Your task to perform on an android device: turn on sleep mode Image 0: 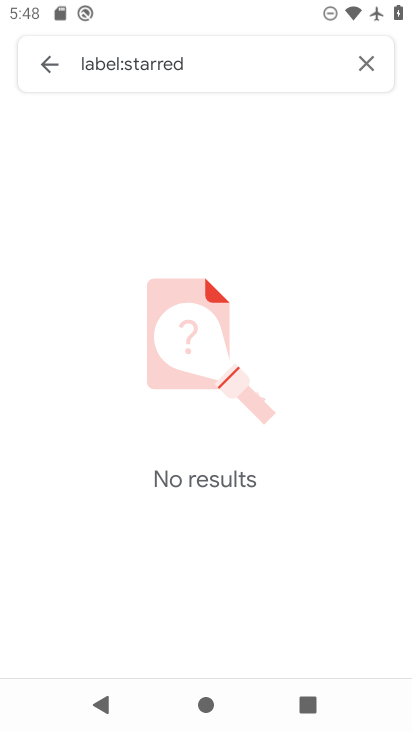
Step 0: press home button
Your task to perform on an android device: turn on sleep mode Image 1: 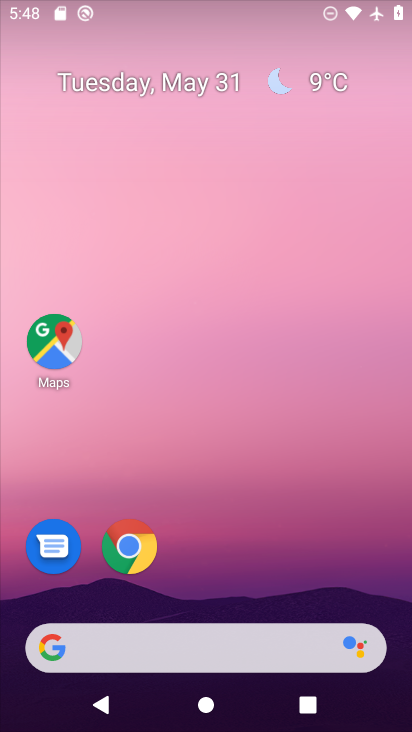
Step 1: drag from (287, 512) to (194, 2)
Your task to perform on an android device: turn on sleep mode Image 2: 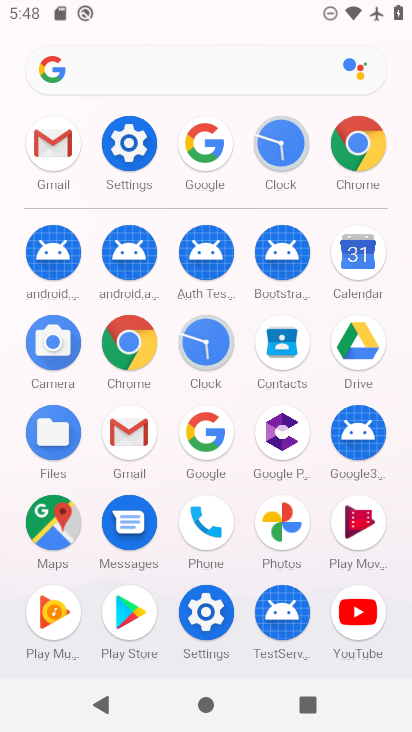
Step 2: click (115, 149)
Your task to perform on an android device: turn on sleep mode Image 3: 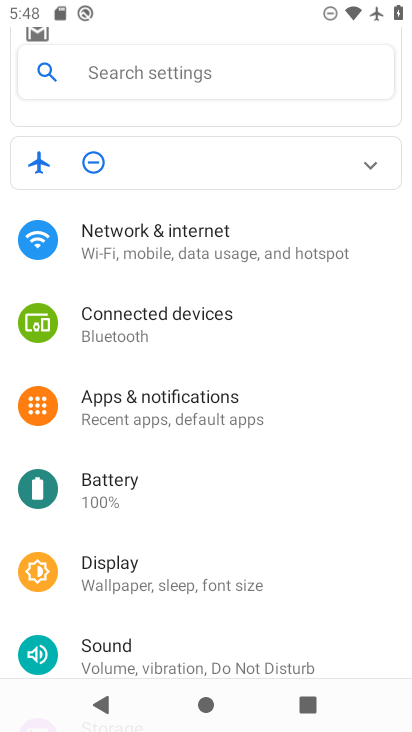
Step 3: click (179, 568)
Your task to perform on an android device: turn on sleep mode Image 4: 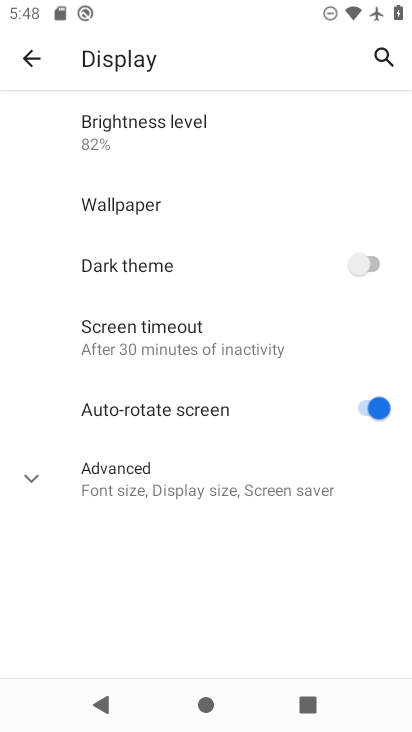
Step 4: task complete